Your task to perform on an android device: How do I get to the nearest Macy's? Image 0: 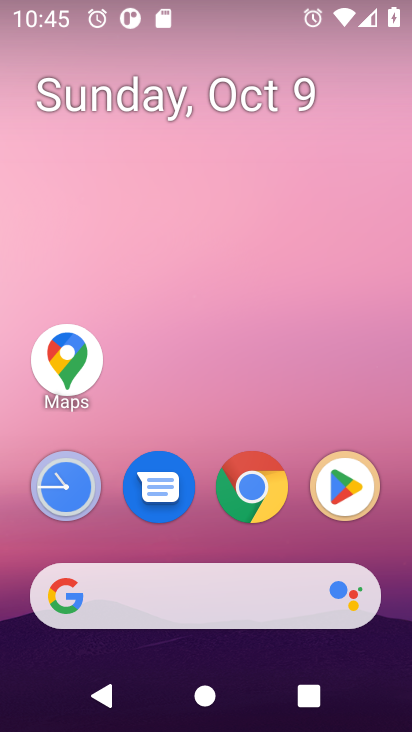
Step 0: drag from (272, 555) to (273, 119)
Your task to perform on an android device: How do I get to the nearest Macy's? Image 1: 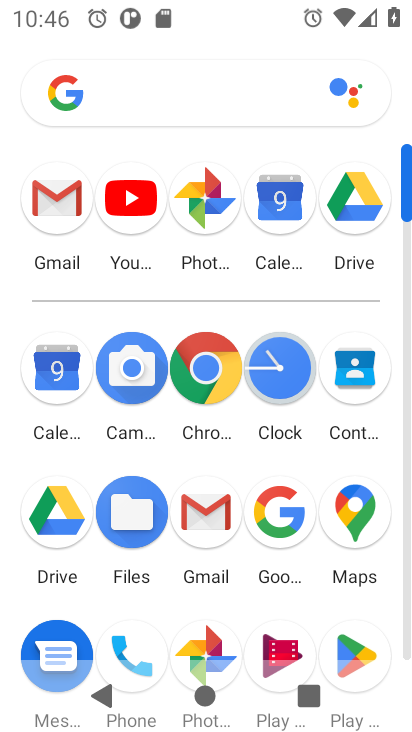
Step 1: click (208, 361)
Your task to perform on an android device: How do I get to the nearest Macy's? Image 2: 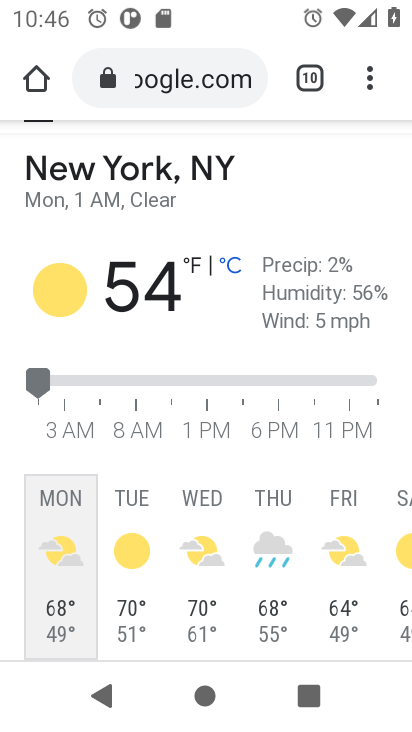
Step 2: drag from (369, 82) to (40, 167)
Your task to perform on an android device: How do I get to the nearest Macy's? Image 3: 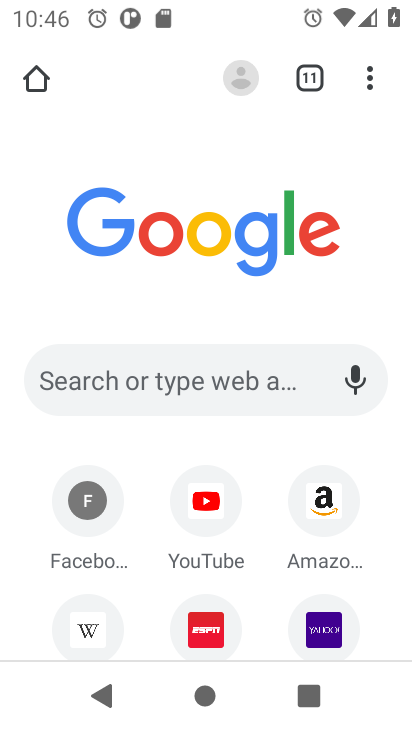
Step 3: click (185, 385)
Your task to perform on an android device: How do I get to the nearest Macy's? Image 4: 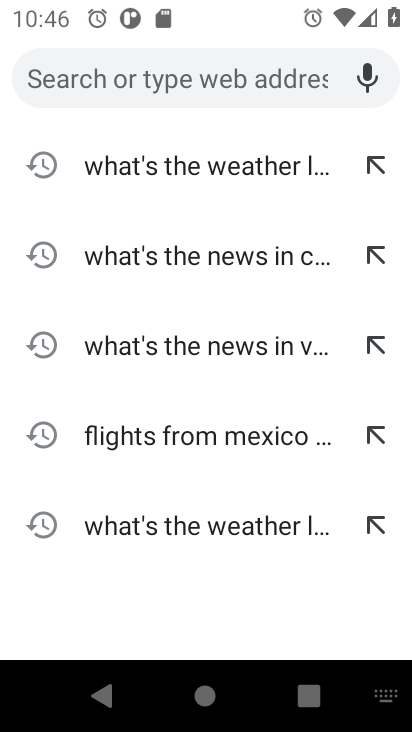
Step 4: type "How do I get to the nearest Macy's?"
Your task to perform on an android device: How do I get to the nearest Macy's? Image 5: 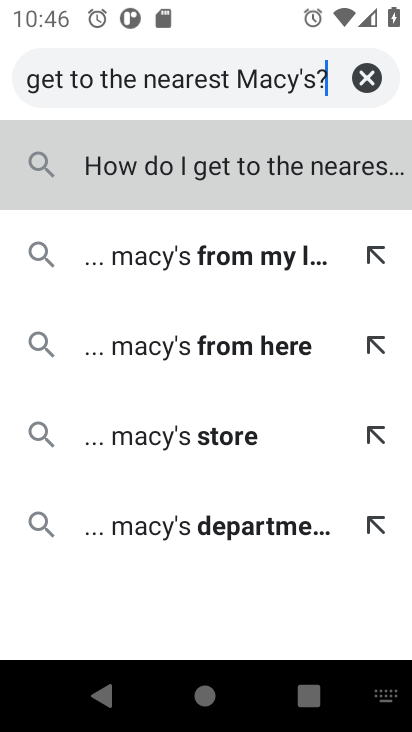
Step 5: type ""
Your task to perform on an android device: How do I get to the nearest Macy's? Image 6: 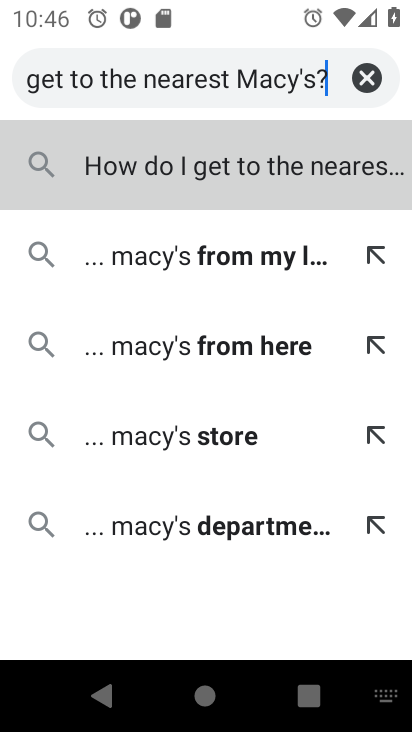
Step 6: click (256, 162)
Your task to perform on an android device: How do I get to the nearest Macy's? Image 7: 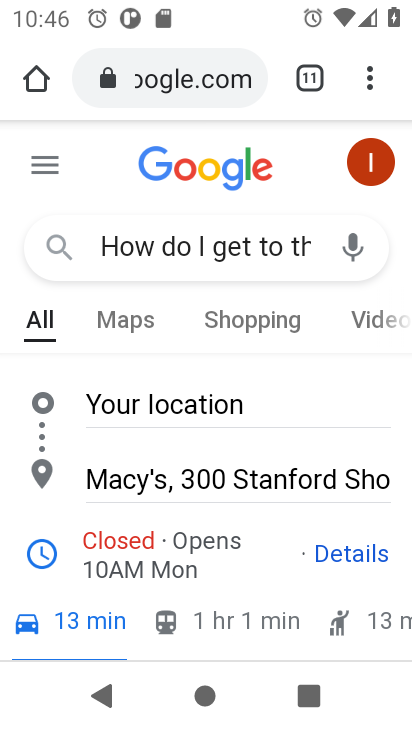
Step 7: task complete